Your task to perform on an android device: Open Google Maps and go to "Timeline" Image 0: 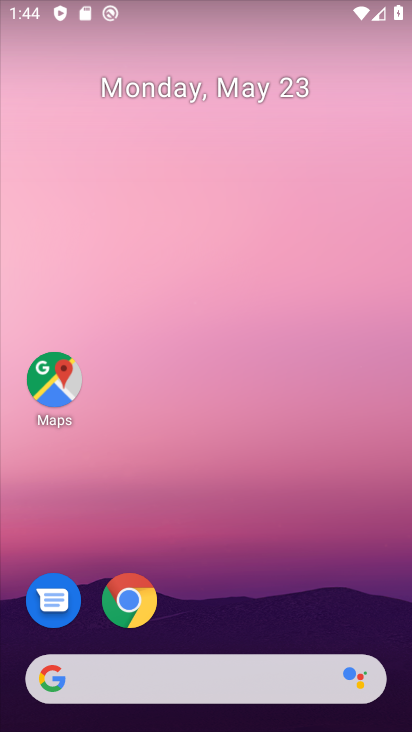
Step 0: drag from (245, 618) to (245, 130)
Your task to perform on an android device: Open Google Maps and go to "Timeline" Image 1: 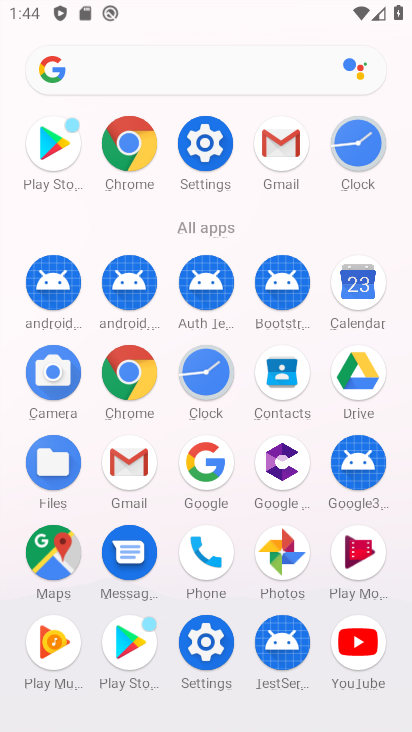
Step 1: click (70, 543)
Your task to perform on an android device: Open Google Maps and go to "Timeline" Image 2: 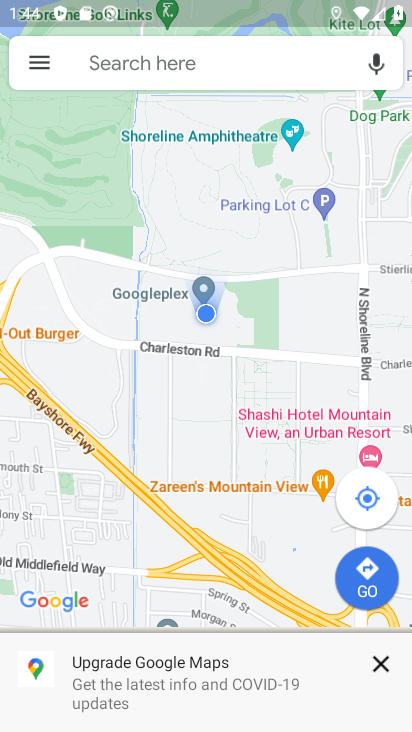
Step 2: click (36, 63)
Your task to perform on an android device: Open Google Maps and go to "Timeline" Image 3: 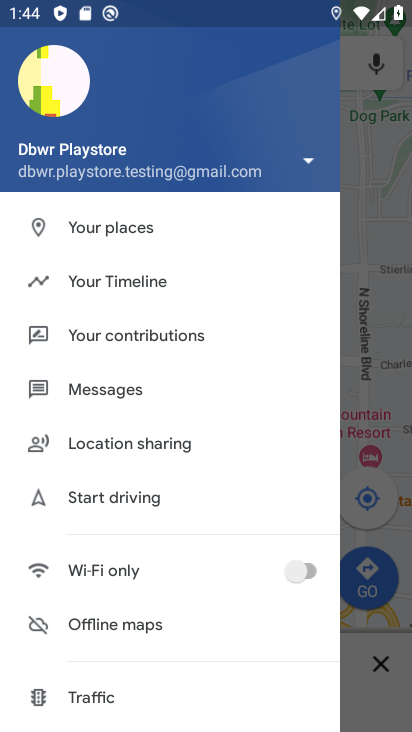
Step 3: click (149, 285)
Your task to perform on an android device: Open Google Maps and go to "Timeline" Image 4: 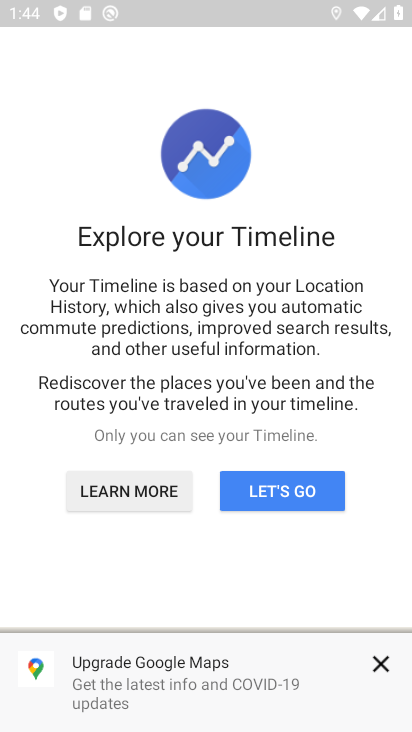
Step 4: click (316, 505)
Your task to perform on an android device: Open Google Maps and go to "Timeline" Image 5: 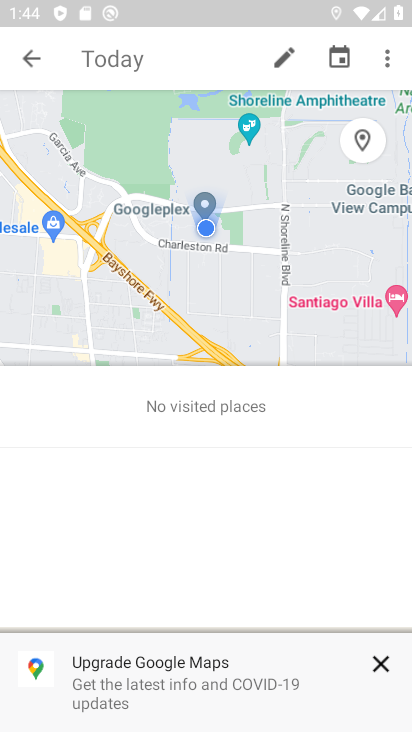
Step 5: task complete